Your task to perform on an android device: Open Chrome and go to settings Image 0: 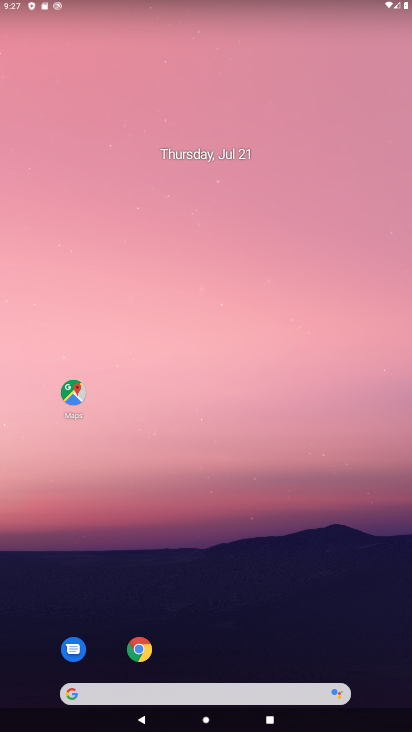
Step 0: click (145, 655)
Your task to perform on an android device: Open Chrome and go to settings Image 1: 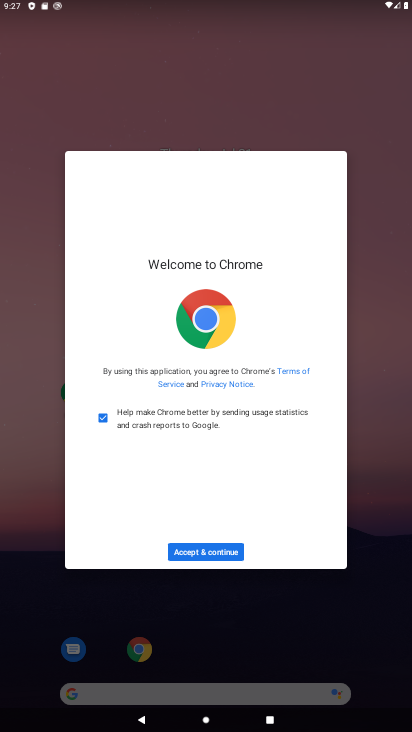
Step 1: click (188, 549)
Your task to perform on an android device: Open Chrome and go to settings Image 2: 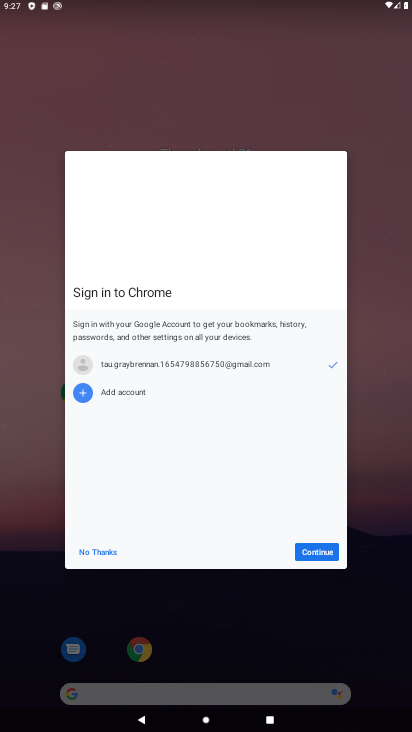
Step 2: click (321, 553)
Your task to perform on an android device: Open Chrome and go to settings Image 3: 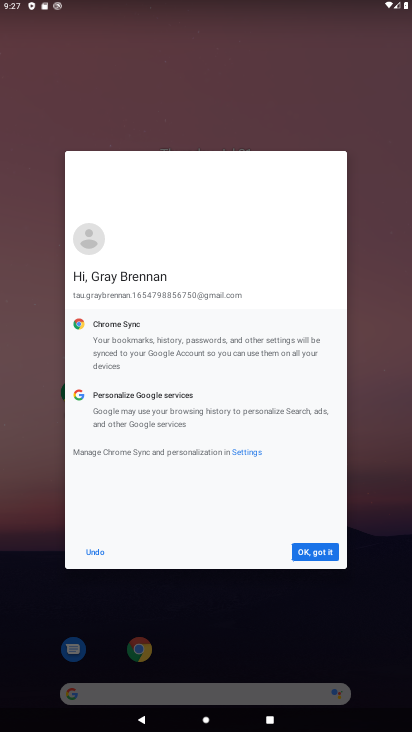
Step 3: click (319, 558)
Your task to perform on an android device: Open Chrome and go to settings Image 4: 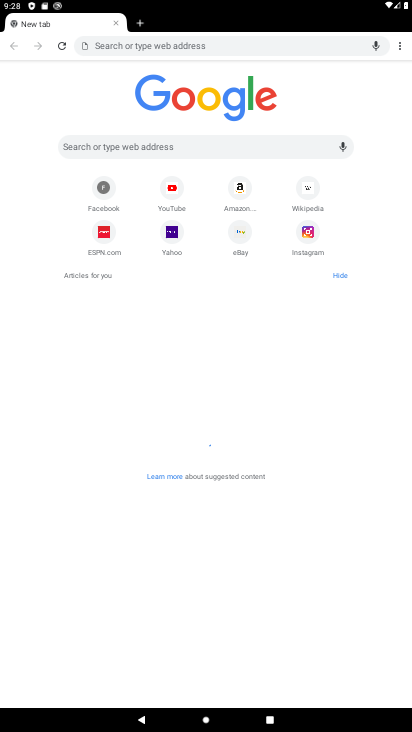
Step 4: click (399, 47)
Your task to perform on an android device: Open Chrome and go to settings Image 5: 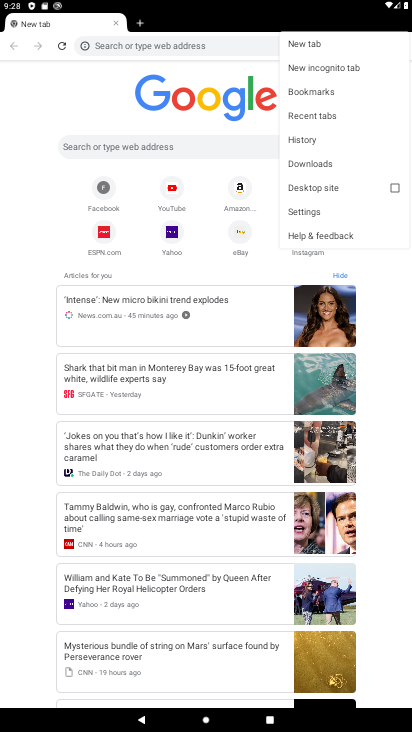
Step 5: click (399, 47)
Your task to perform on an android device: Open Chrome and go to settings Image 6: 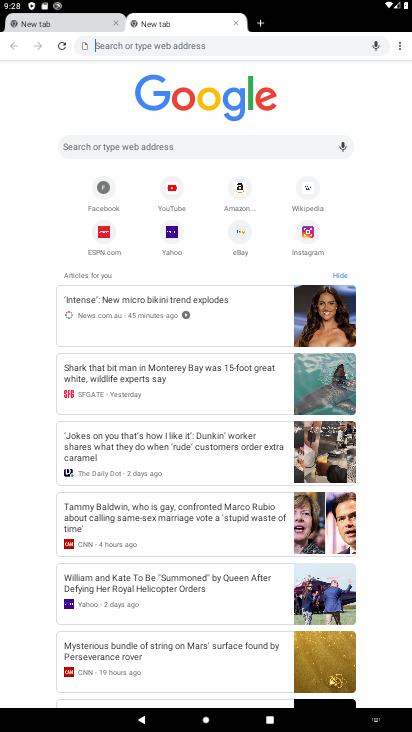
Step 6: click (397, 44)
Your task to perform on an android device: Open Chrome and go to settings Image 7: 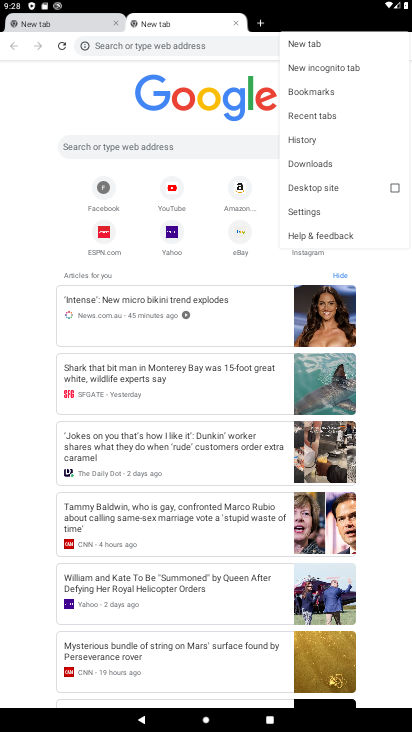
Step 7: click (315, 207)
Your task to perform on an android device: Open Chrome and go to settings Image 8: 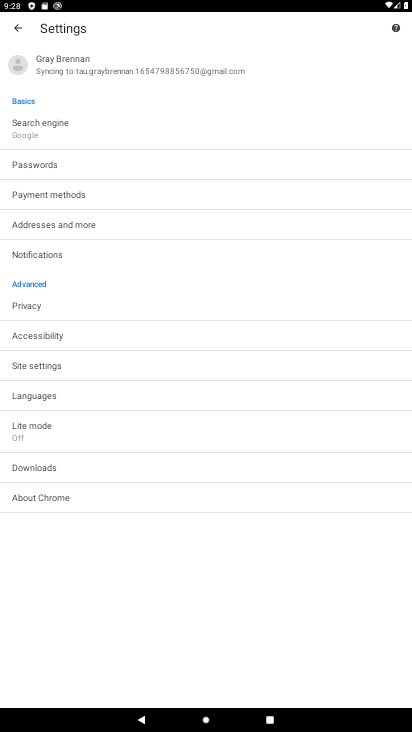
Step 8: task complete